Your task to perform on an android device: Open location settings Image 0: 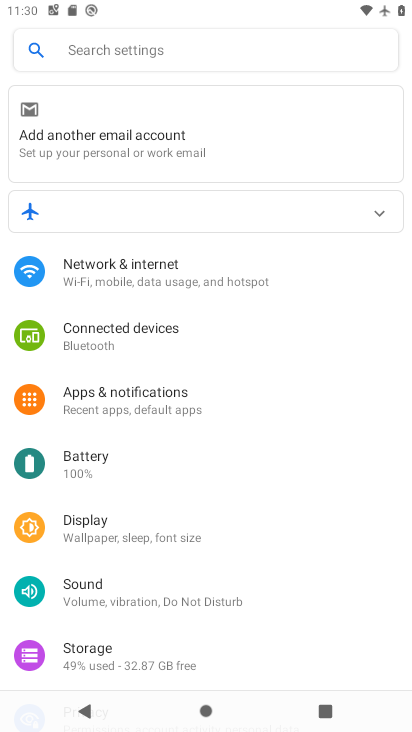
Step 0: press home button
Your task to perform on an android device: Open location settings Image 1: 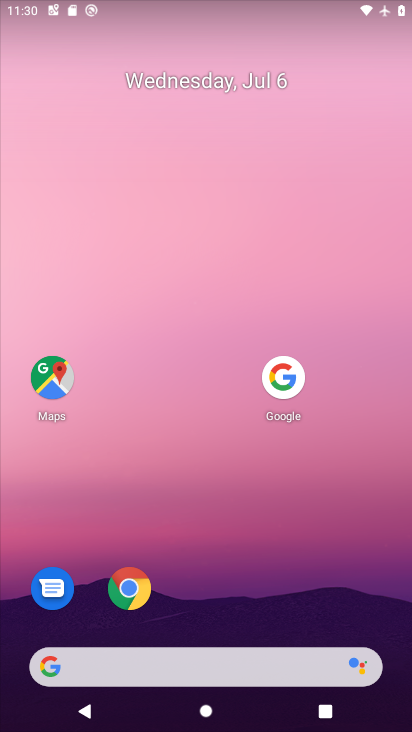
Step 1: drag from (210, 676) to (406, 2)
Your task to perform on an android device: Open location settings Image 2: 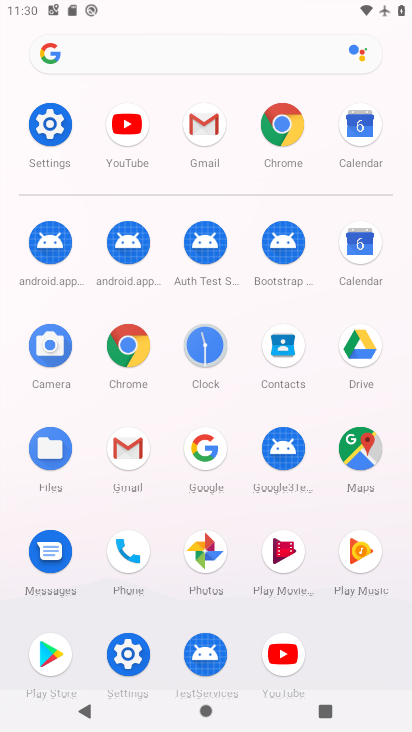
Step 2: click (52, 122)
Your task to perform on an android device: Open location settings Image 3: 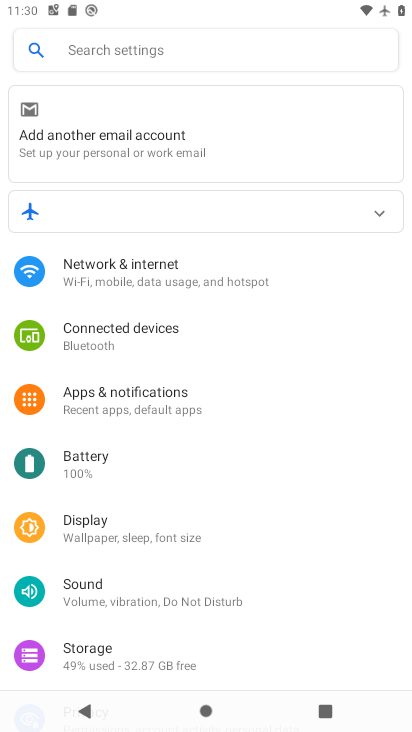
Step 3: drag from (151, 624) to (332, 169)
Your task to perform on an android device: Open location settings Image 4: 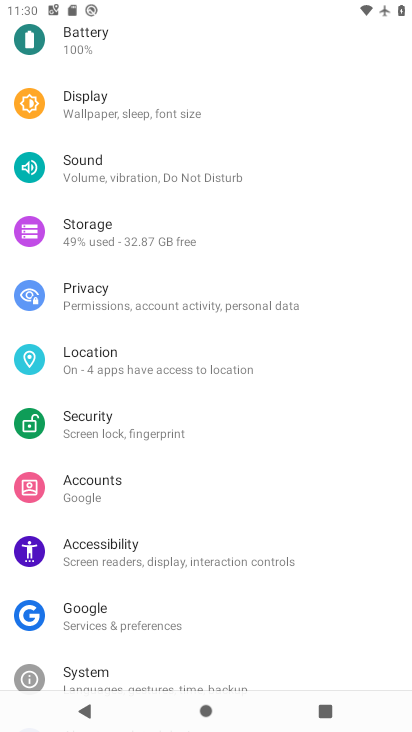
Step 4: click (115, 358)
Your task to perform on an android device: Open location settings Image 5: 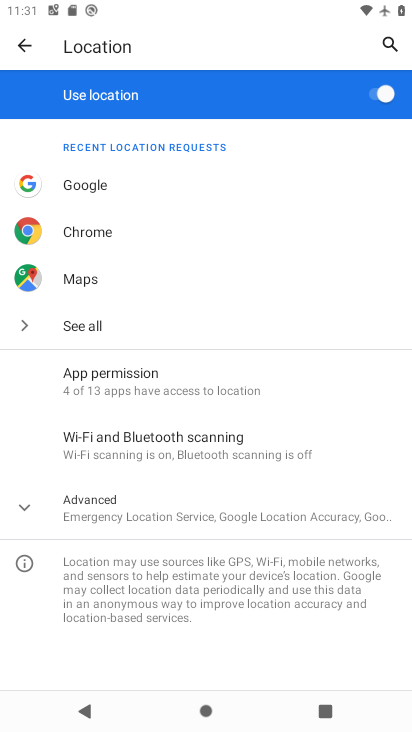
Step 5: task complete